Your task to perform on an android device: turn off wifi Image 0: 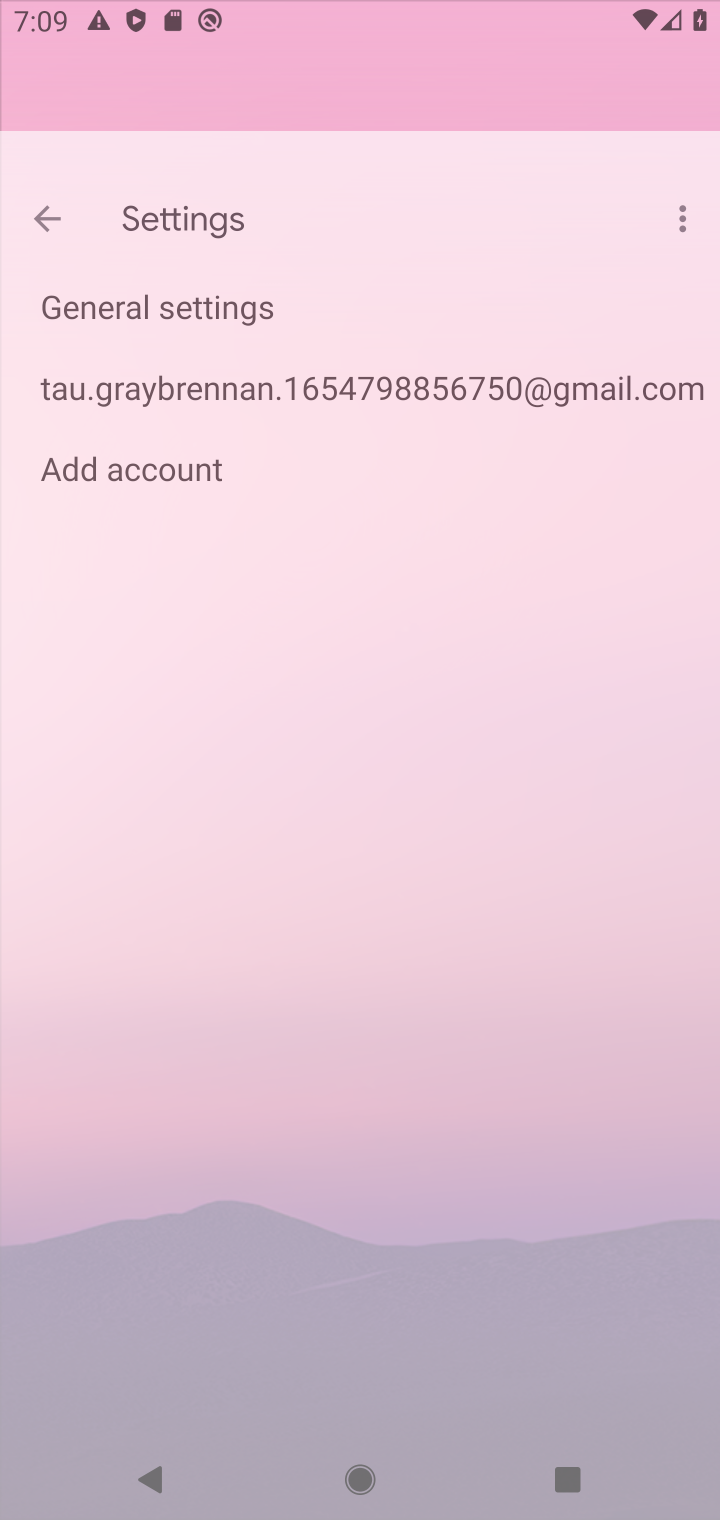
Step 0: press home button
Your task to perform on an android device: turn off wifi Image 1: 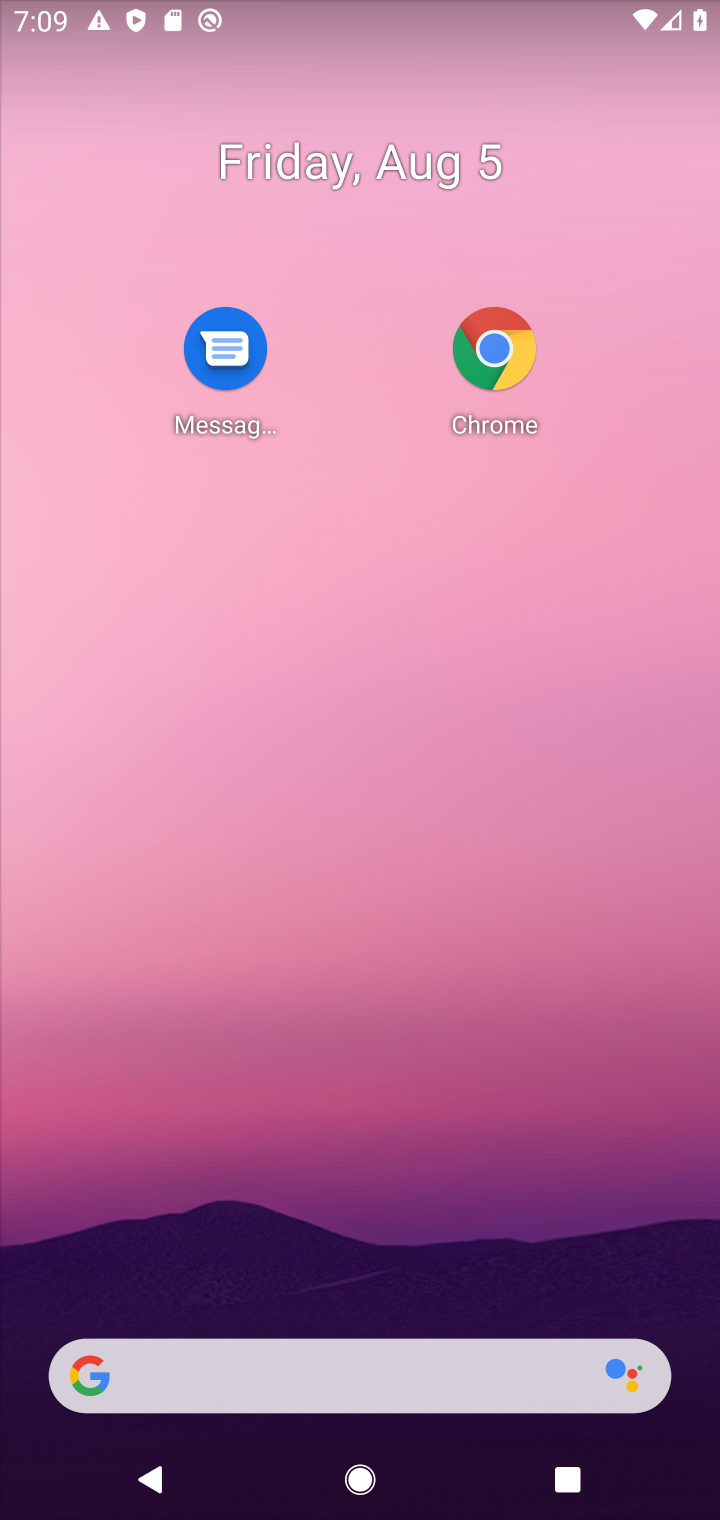
Step 1: drag from (409, 1400) to (254, 619)
Your task to perform on an android device: turn off wifi Image 2: 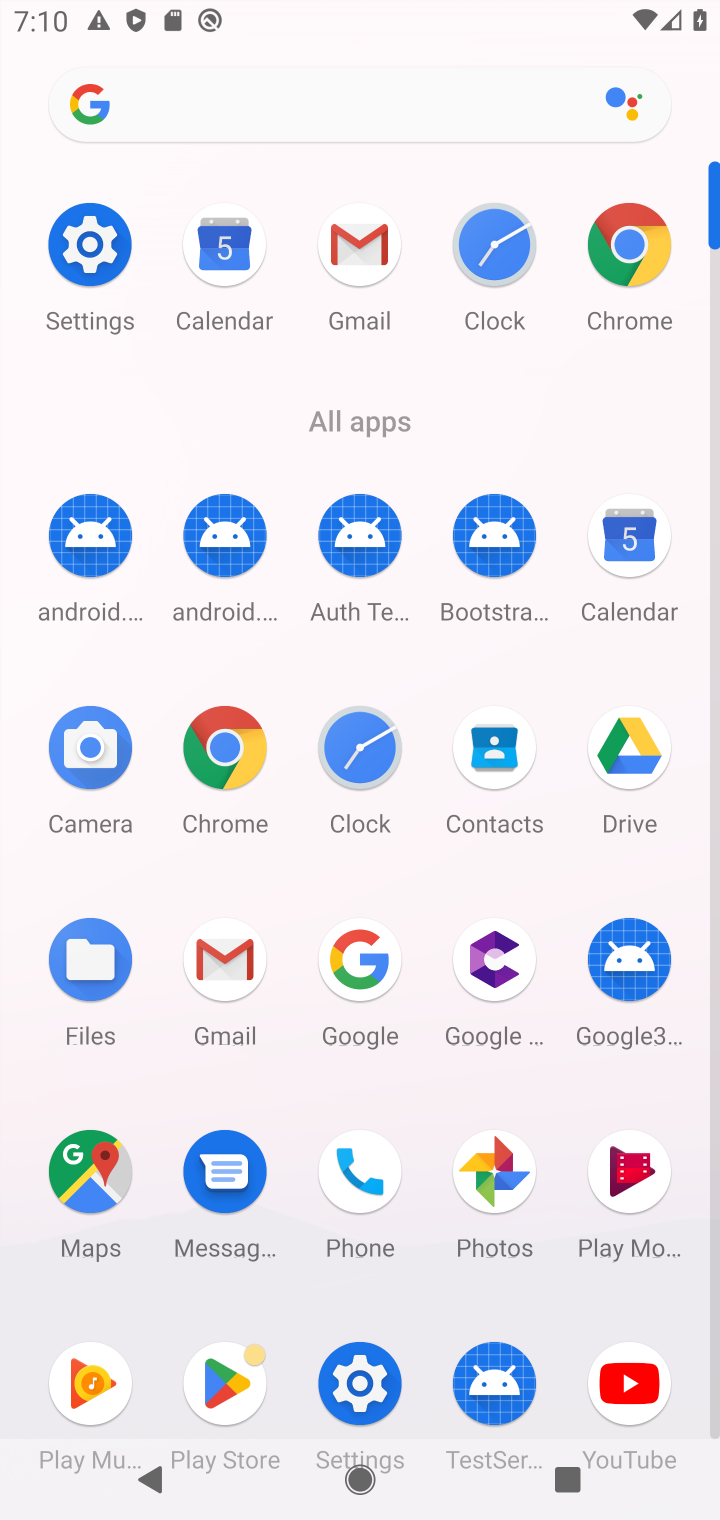
Step 2: click (100, 233)
Your task to perform on an android device: turn off wifi Image 3: 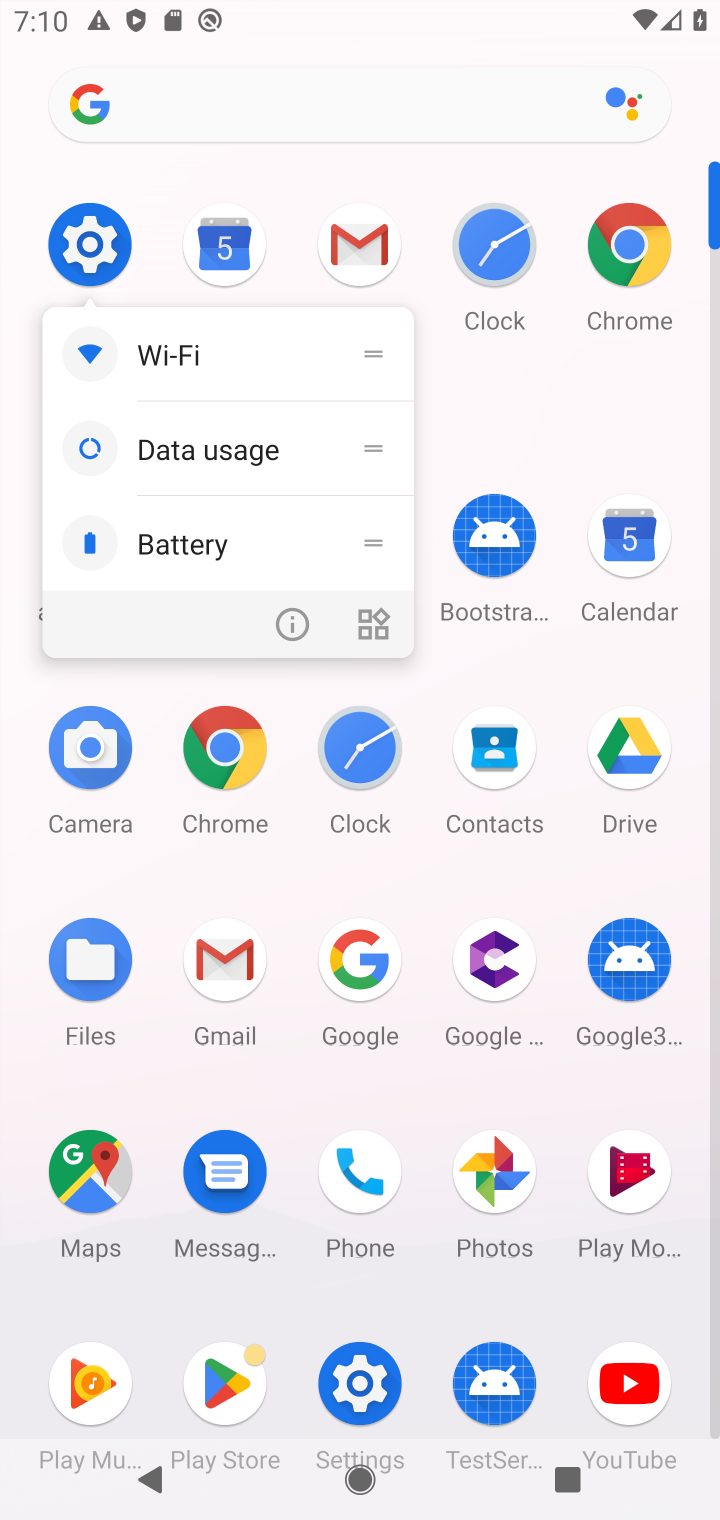
Step 3: click (99, 240)
Your task to perform on an android device: turn off wifi Image 4: 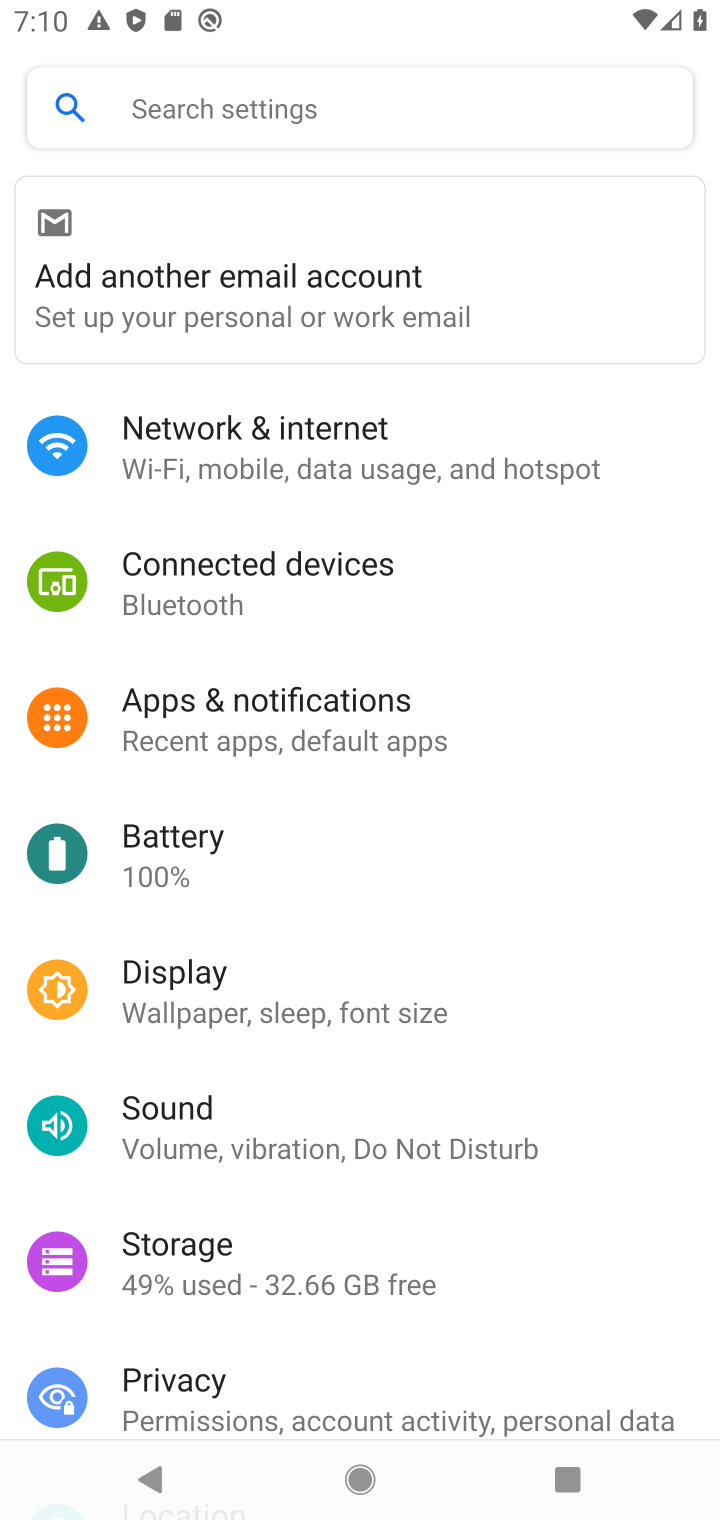
Step 4: click (199, 445)
Your task to perform on an android device: turn off wifi Image 5: 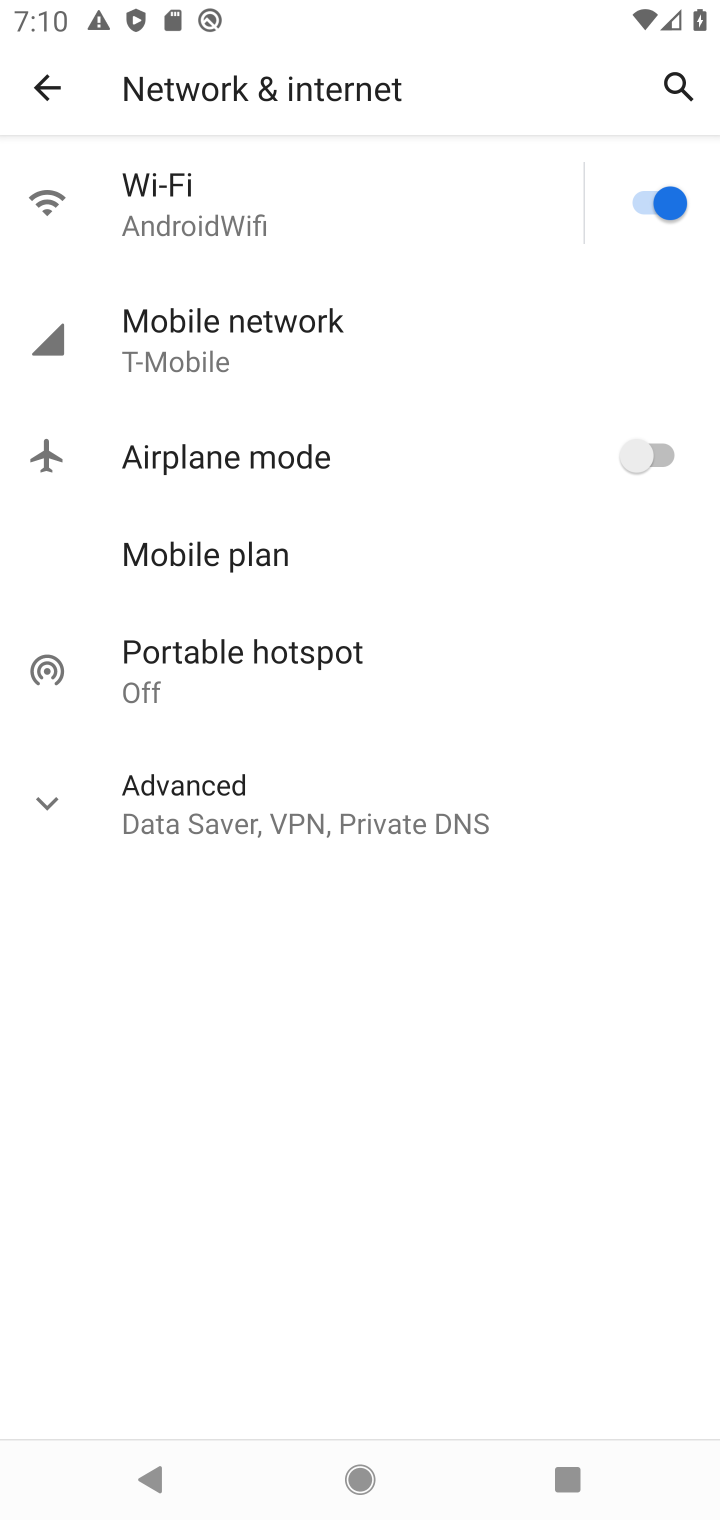
Step 5: click (172, 223)
Your task to perform on an android device: turn off wifi Image 6: 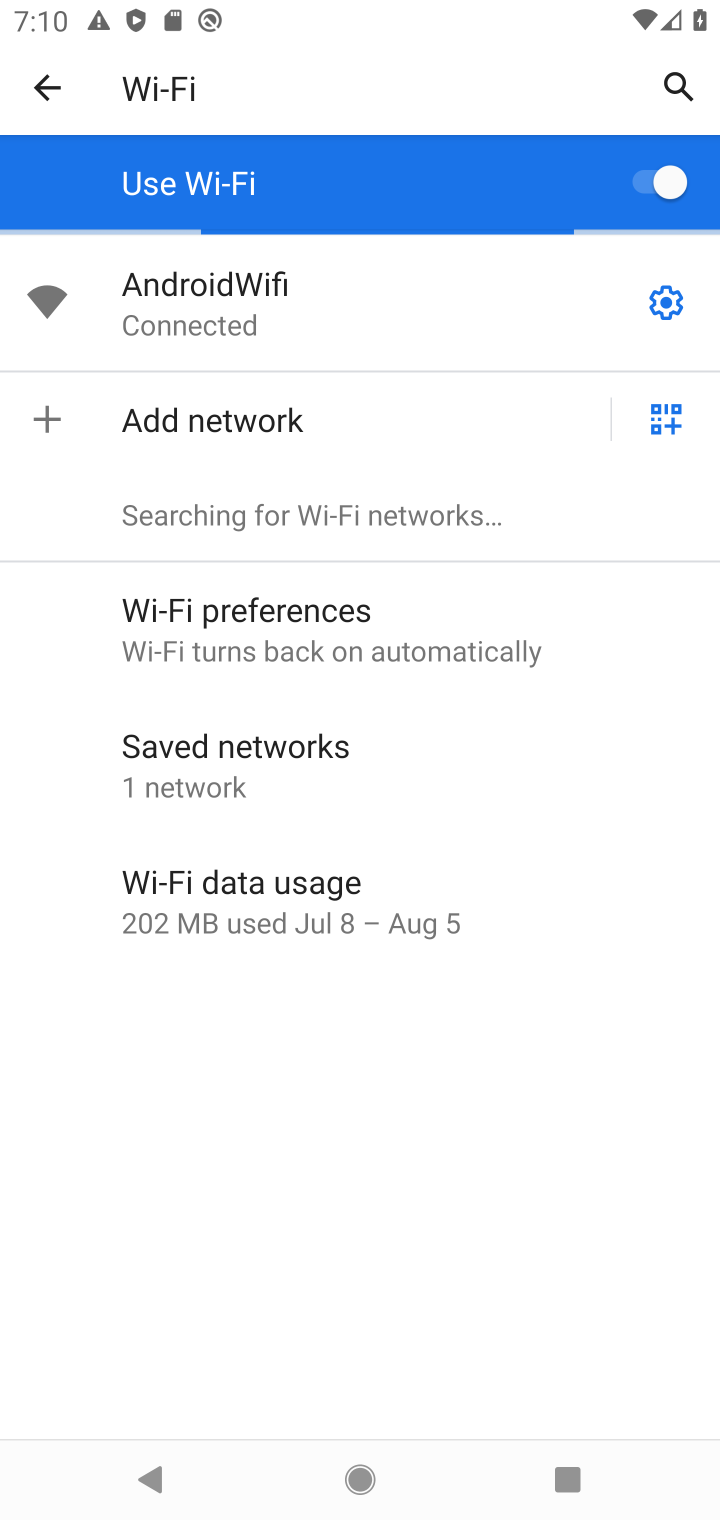
Step 6: click (680, 167)
Your task to perform on an android device: turn off wifi Image 7: 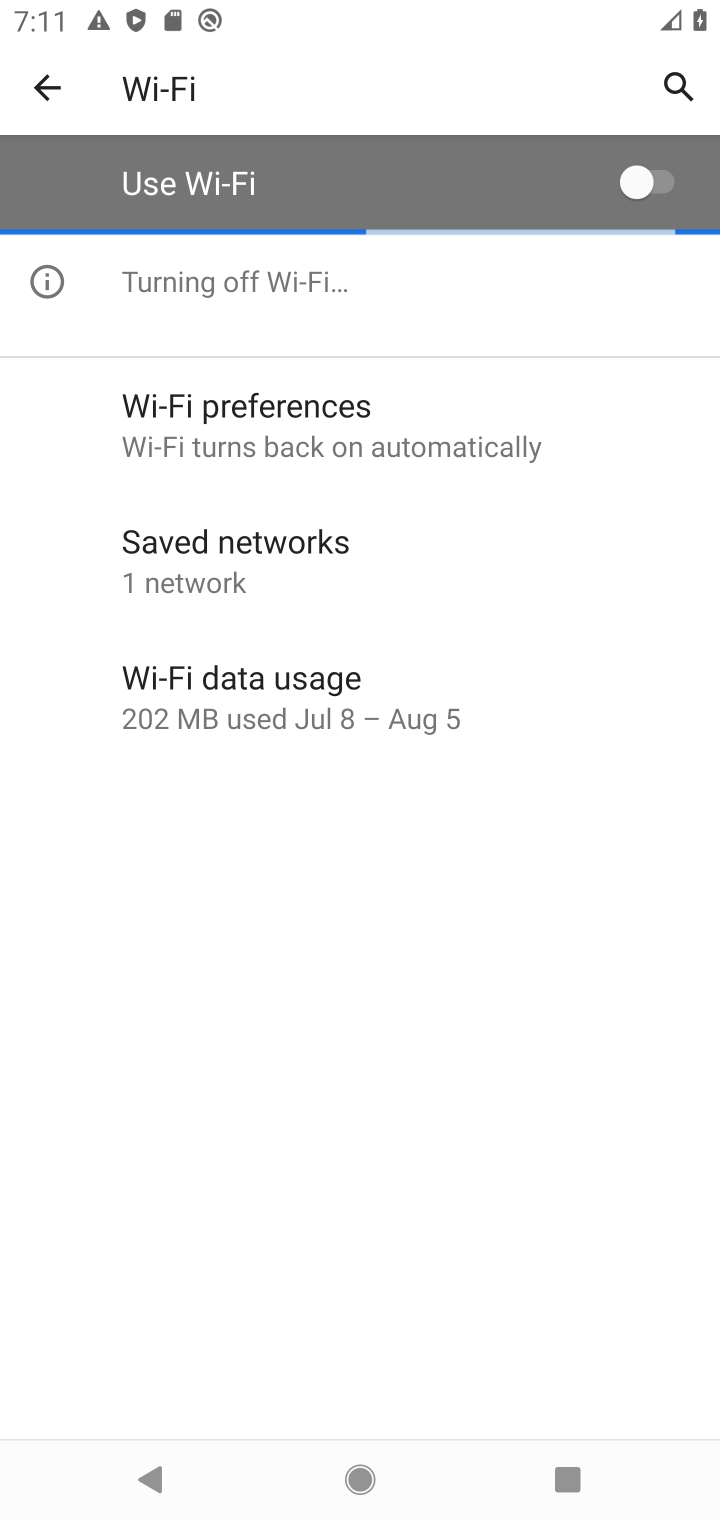
Step 7: task complete